Your task to perform on an android device: refresh tabs in the chrome app Image 0: 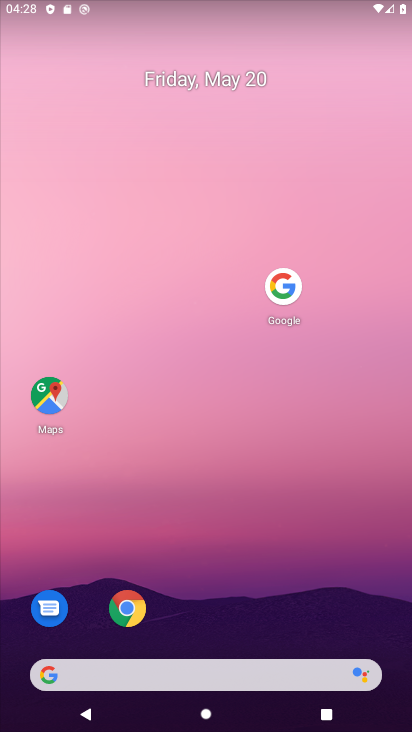
Step 0: drag from (222, 639) to (129, 74)
Your task to perform on an android device: refresh tabs in the chrome app Image 1: 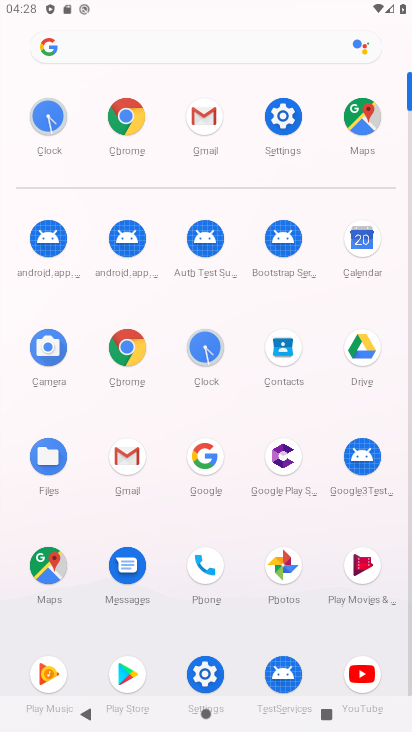
Step 1: click (115, 126)
Your task to perform on an android device: refresh tabs in the chrome app Image 2: 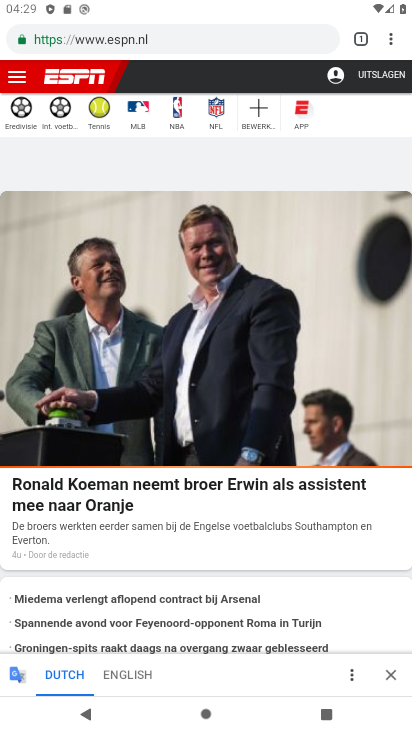
Step 2: click (391, 43)
Your task to perform on an android device: refresh tabs in the chrome app Image 3: 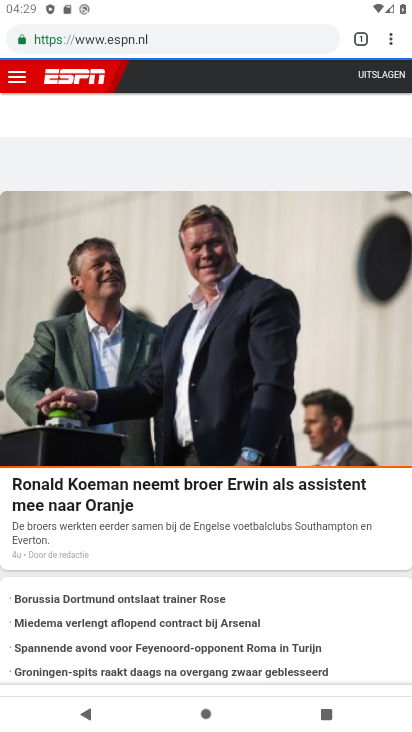
Step 3: task complete